Your task to perform on an android device: Open Wikipedia Image 0: 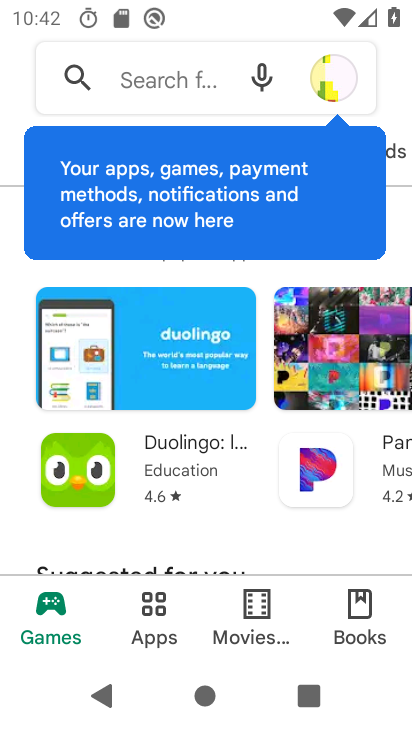
Step 0: press home button
Your task to perform on an android device: Open Wikipedia Image 1: 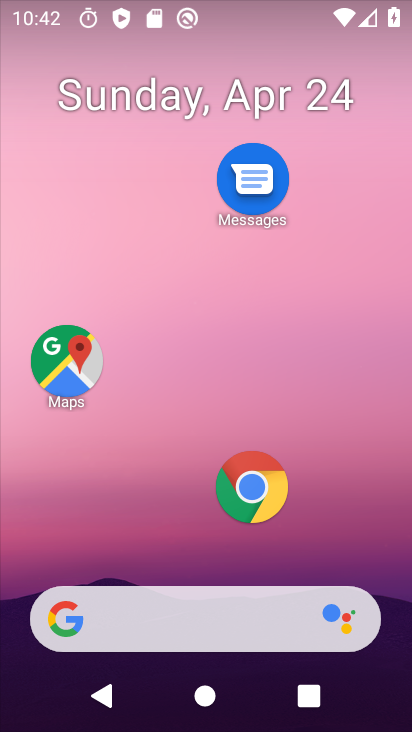
Step 1: click (268, 489)
Your task to perform on an android device: Open Wikipedia Image 2: 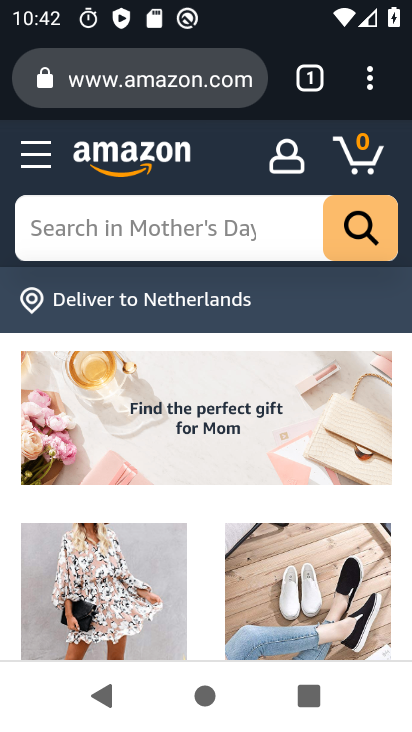
Step 2: click (369, 74)
Your task to perform on an android device: Open Wikipedia Image 3: 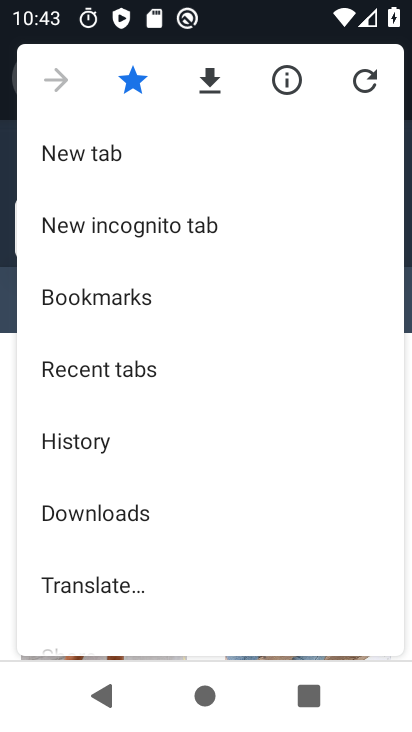
Step 3: click (117, 153)
Your task to perform on an android device: Open Wikipedia Image 4: 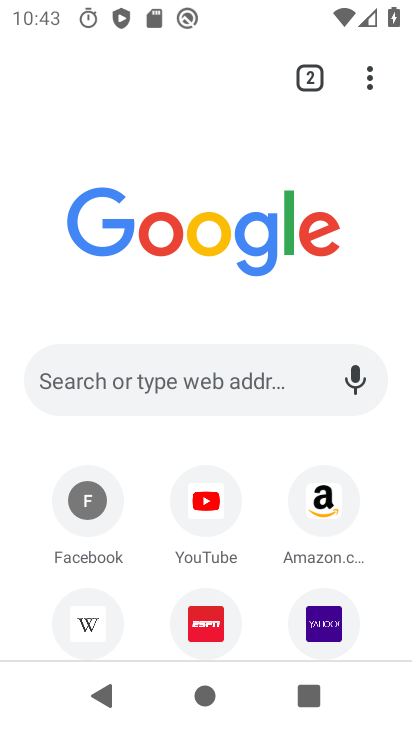
Step 4: click (77, 634)
Your task to perform on an android device: Open Wikipedia Image 5: 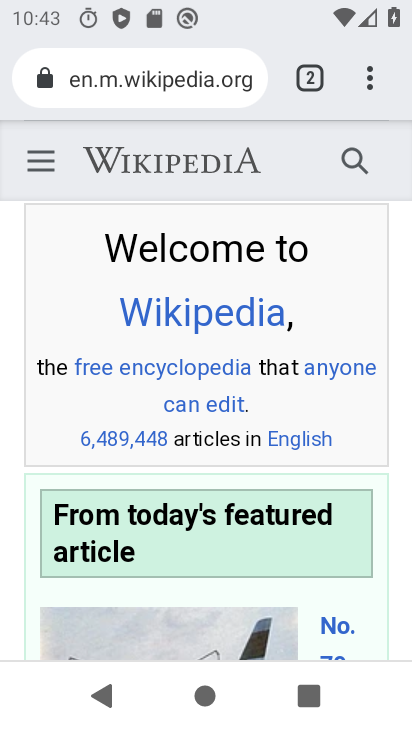
Step 5: task complete